Your task to perform on an android device: Open the calendar app, open the side menu, and click the "Day" option Image 0: 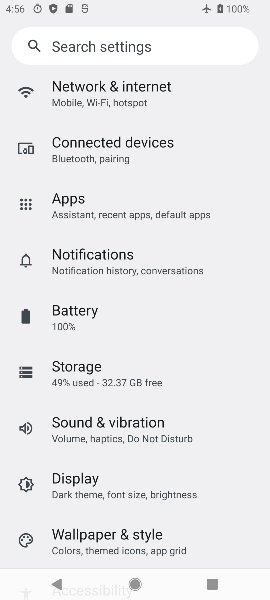
Step 0: press back button
Your task to perform on an android device: Open the calendar app, open the side menu, and click the "Day" option Image 1: 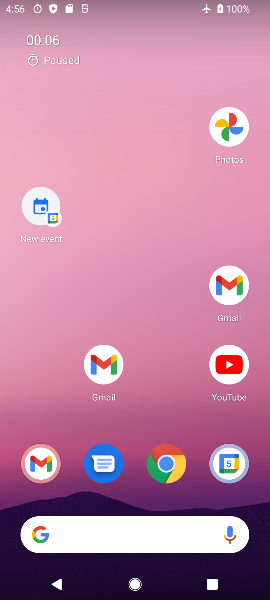
Step 1: drag from (126, 569) to (104, 112)
Your task to perform on an android device: Open the calendar app, open the side menu, and click the "Day" option Image 2: 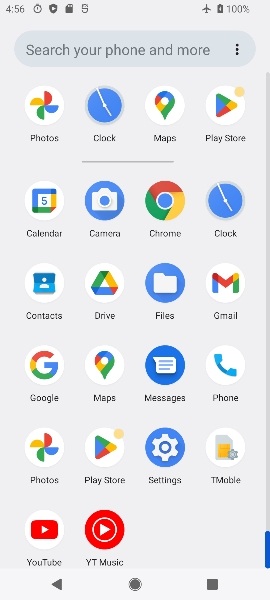
Step 2: click (44, 198)
Your task to perform on an android device: Open the calendar app, open the side menu, and click the "Day" option Image 3: 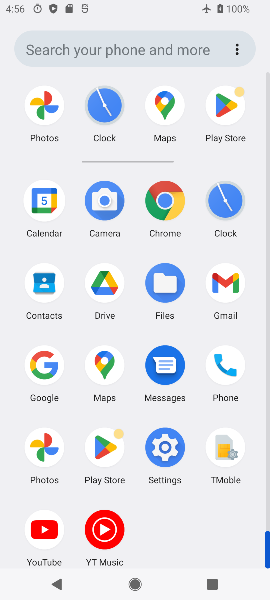
Step 3: click (45, 198)
Your task to perform on an android device: Open the calendar app, open the side menu, and click the "Day" option Image 4: 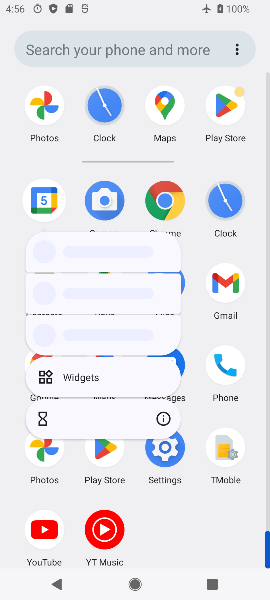
Step 4: click (45, 198)
Your task to perform on an android device: Open the calendar app, open the side menu, and click the "Day" option Image 5: 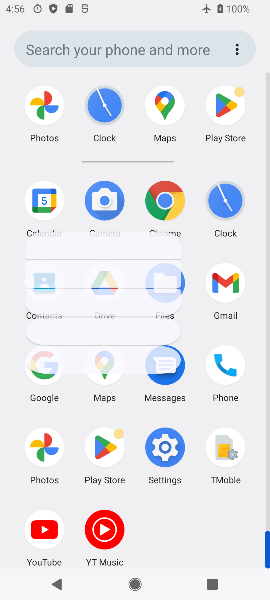
Step 5: click (45, 198)
Your task to perform on an android device: Open the calendar app, open the side menu, and click the "Day" option Image 6: 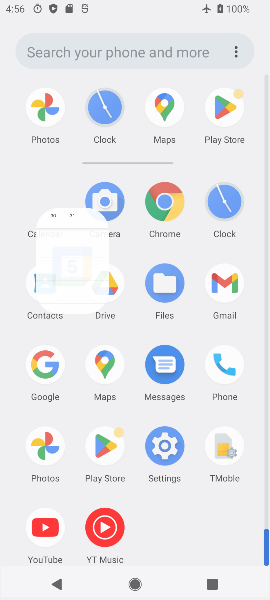
Step 6: click (45, 198)
Your task to perform on an android device: Open the calendar app, open the side menu, and click the "Day" option Image 7: 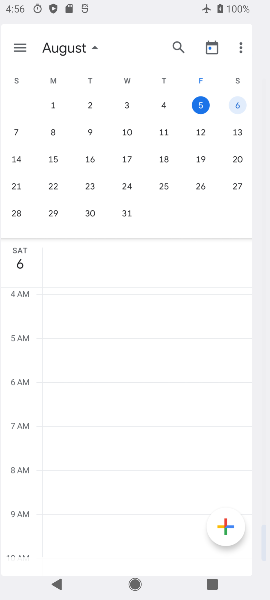
Step 7: click (45, 198)
Your task to perform on an android device: Open the calendar app, open the side menu, and click the "Day" option Image 8: 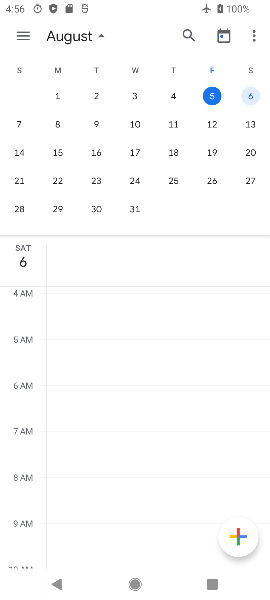
Step 8: click (16, 28)
Your task to perform on an android device: Open the calendar app, open the side menu, and click the "Day" option Image 9: 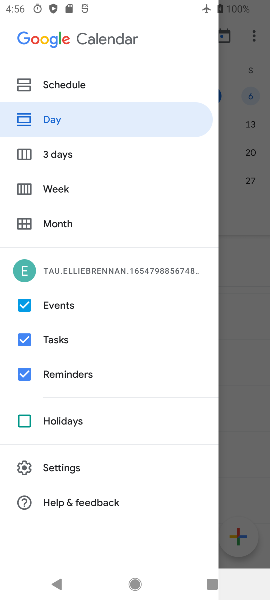
Step 9: click (49, 115)
Your task to perform on an android device: Open the calendar app, open the side menu, and click the "Day" option Image 10: 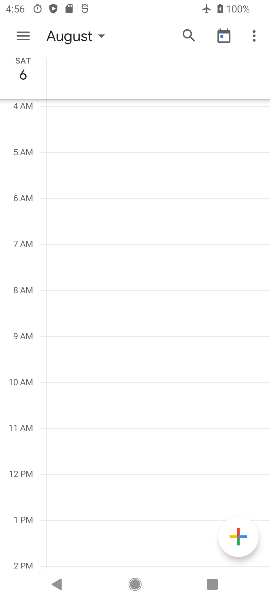
Step 10: task complete